Your task to perform on an android device: Open Chrome and go to settings Image 0: 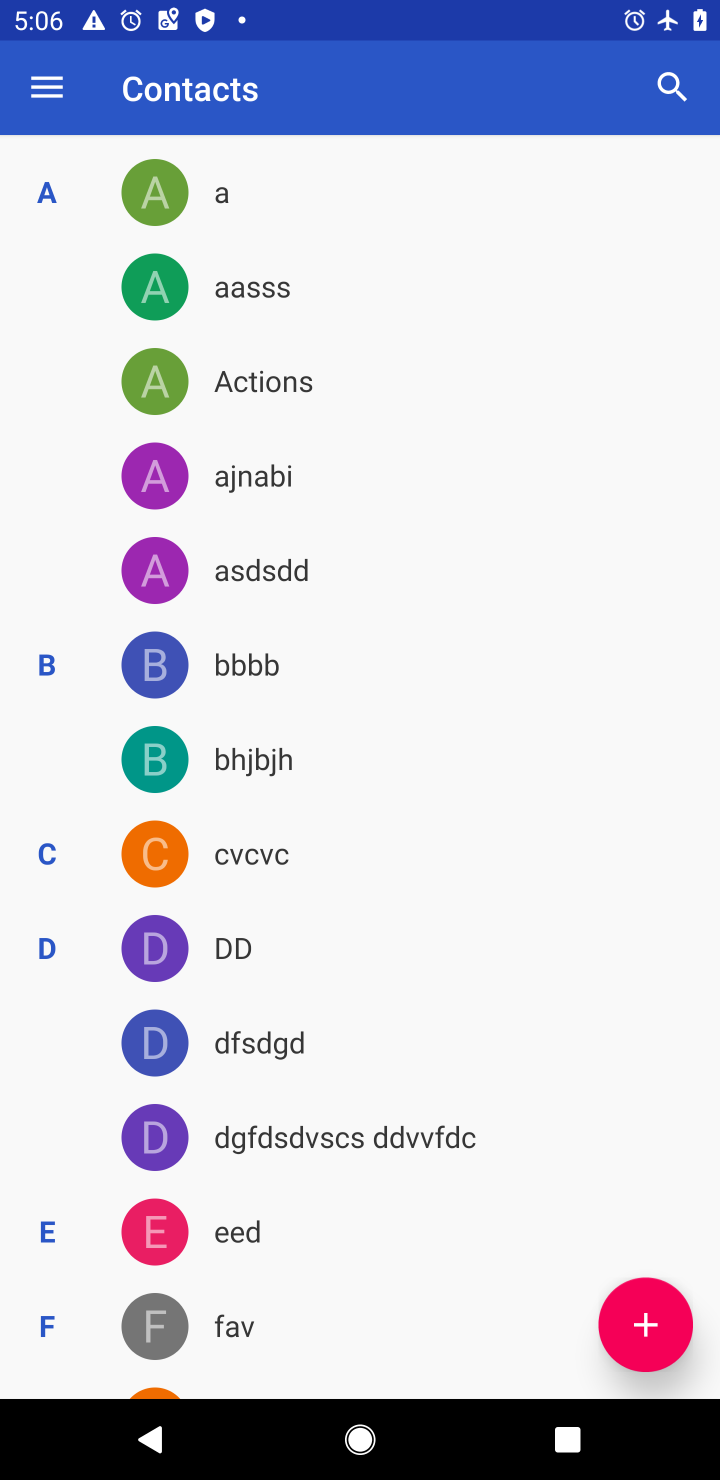
Step 0: press home button
Your task to perform on an android device: Open Chrome and go to settings Image 1: 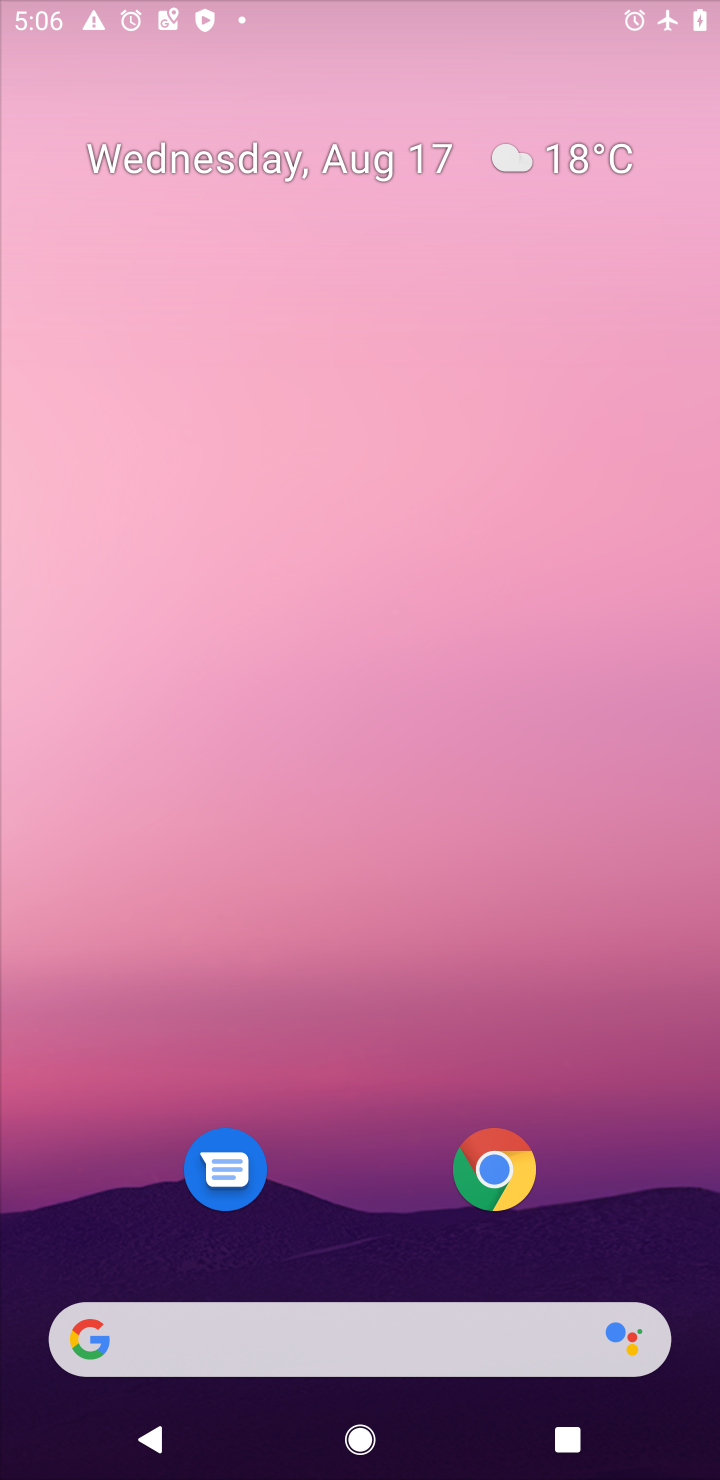
Step 1: drag from (432, 1057) to (393, 68)
Your task to perform on an android device: Open Chrome and go to settings Image 2: 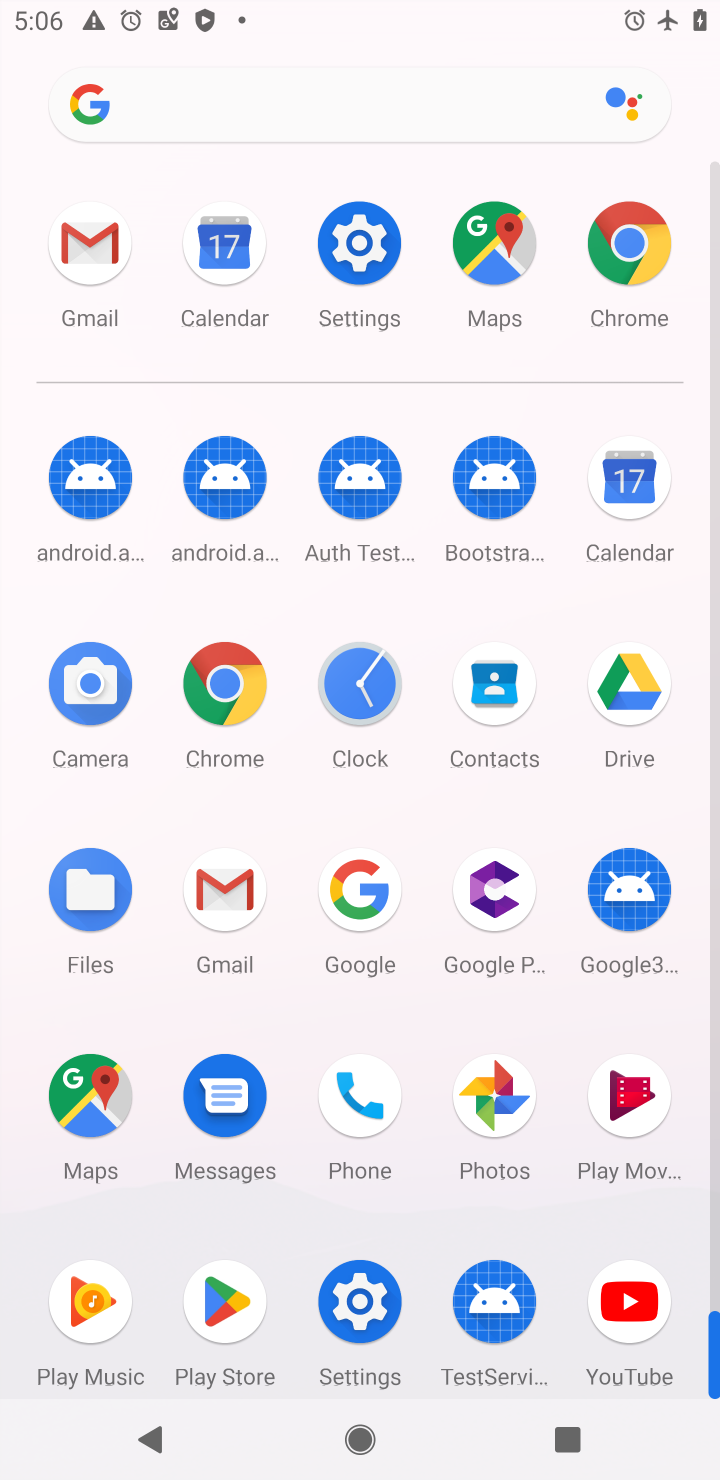
Step 2: click (352, 1308)
Your task to perform on an android device: Open Chrome and go to settings Image 3: 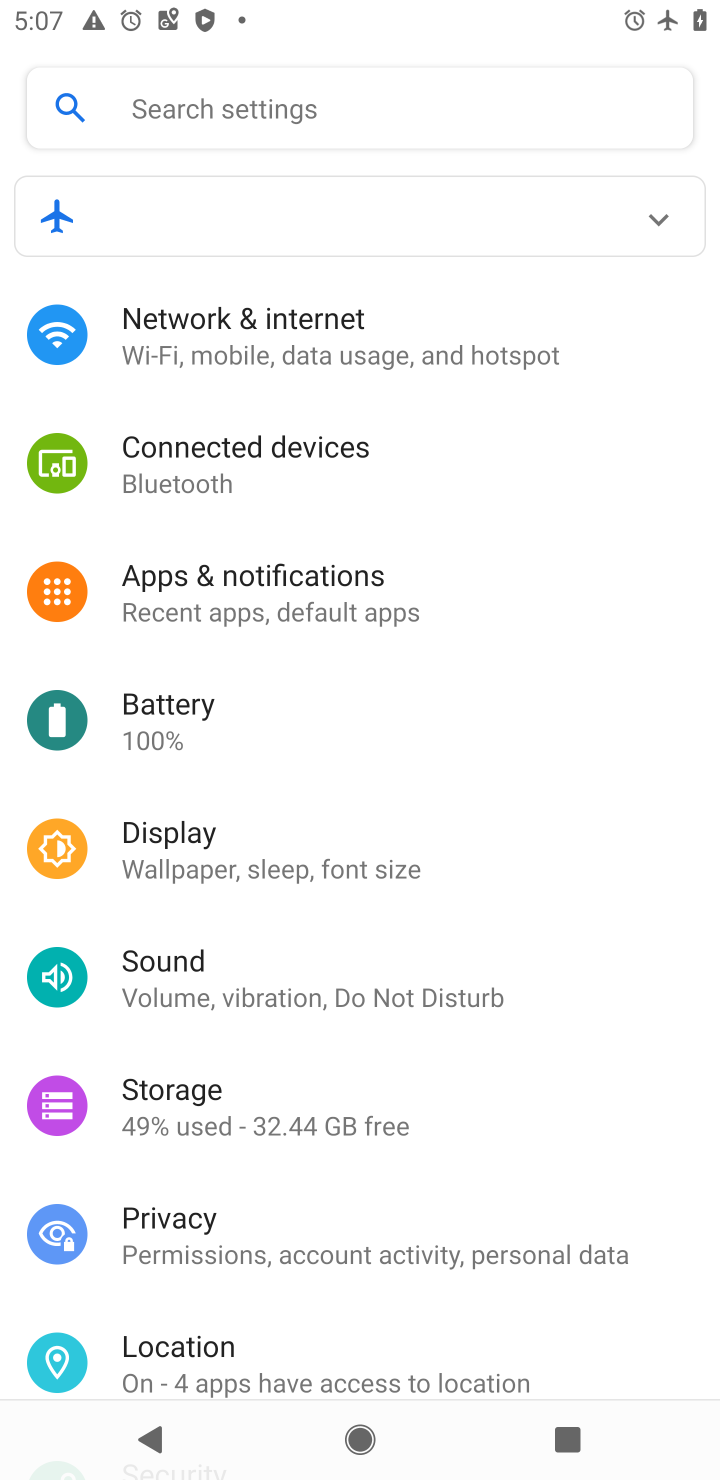
Step 3: task complete